Your task to perform on an android device: set the stopwatch Image 0: 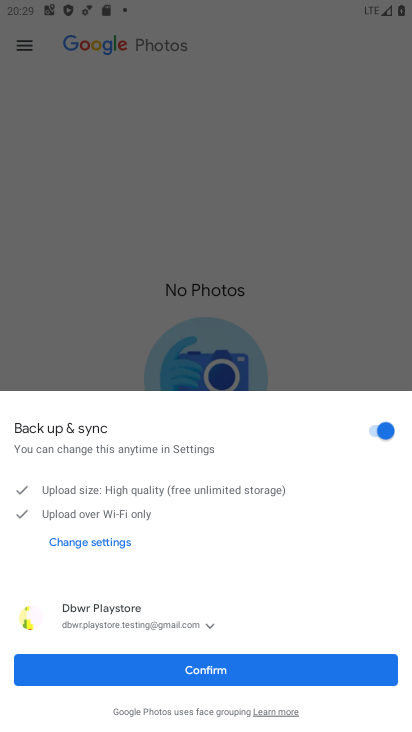
Step 0: press home button
Your task to perform on an android device: set the stopwatch Image 1: 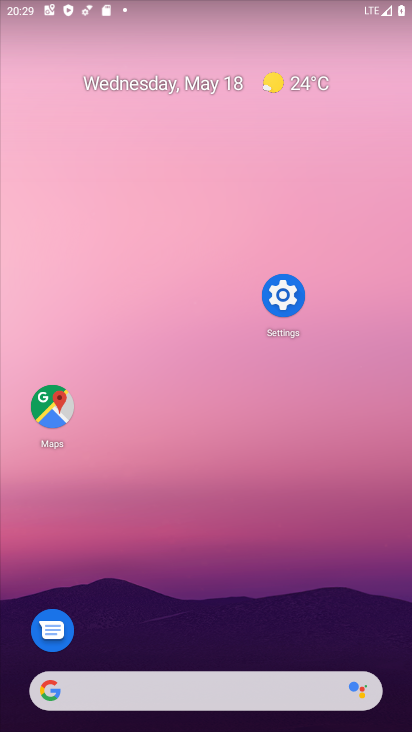
Step 1: drag from (199, 645) to (177, 254)
Your task to perform on an android device: set the stopwatch Image 2: 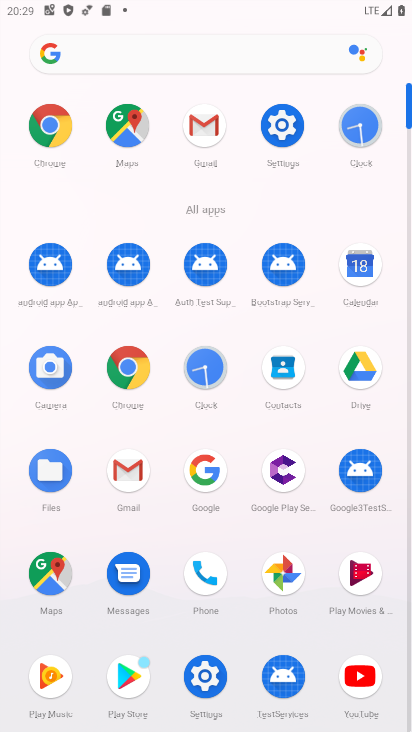
Step 2: click (349, 123)
Your task to perform on an android device: set the stopwatch Image 3: 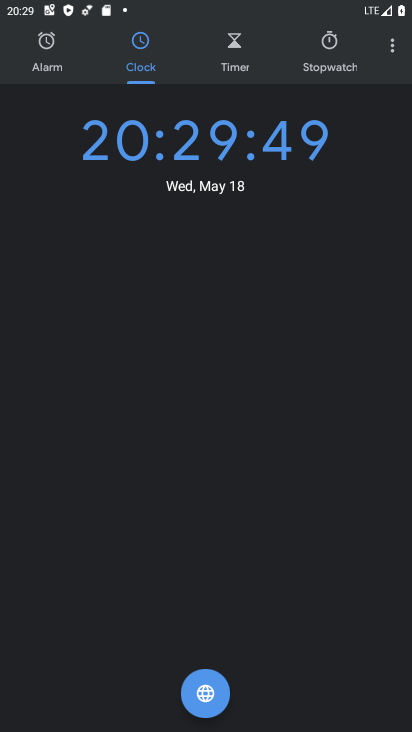
Step 3: click (325, 54)
Your task to perform on an android device: set the stopwatch Image 4: 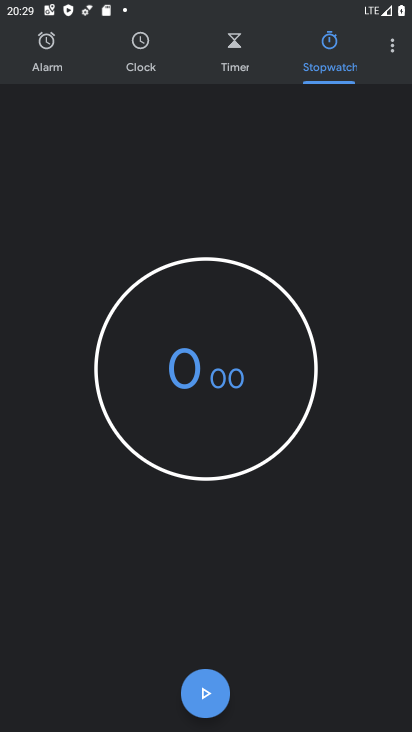
Step 4: click (205, 701)
Your task to perform on an android device: set the stopwatch Image 5: 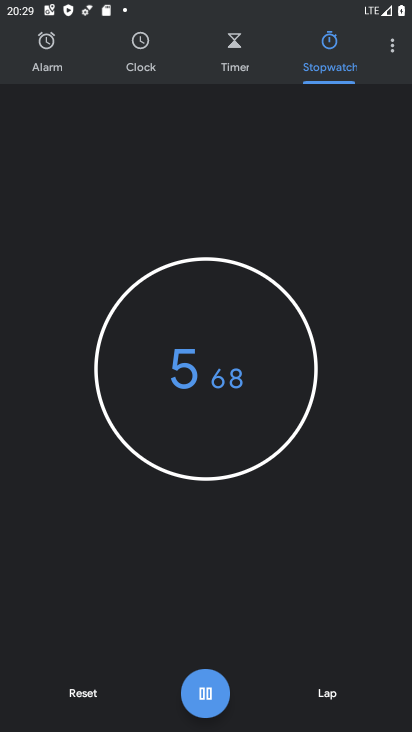
Step 5: click (207, 691)
Your task to perform on an android device: set the stopwatch Image 6: 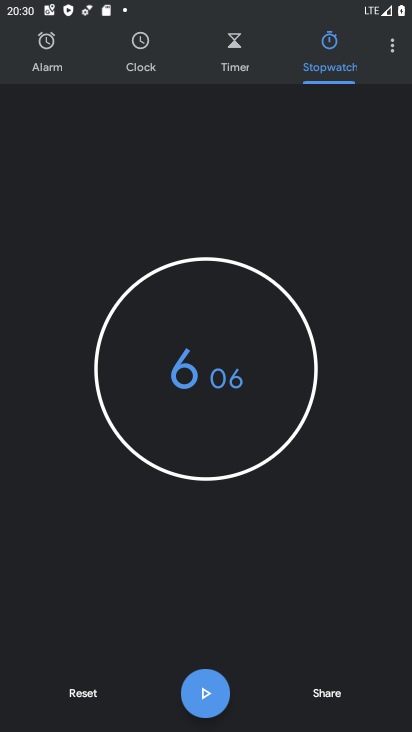
Step 6: task complete